Your task to perform on an android device: Search for sushi restaurants on Maps Image 0: 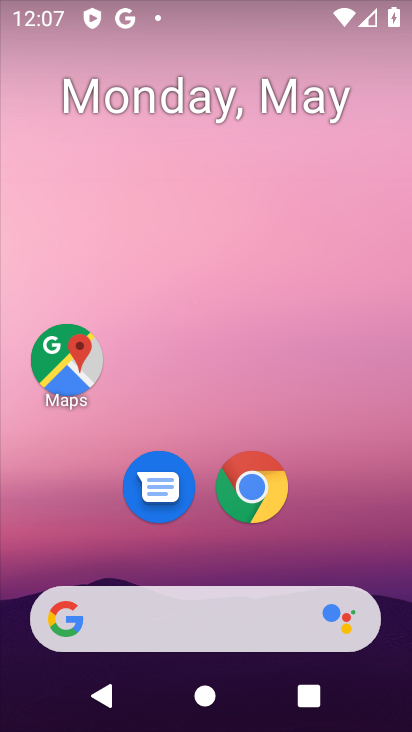
Step 0: click (66, 357)
Your task to perform on an android device: Search for sushi restaurants on Maps Image 1: 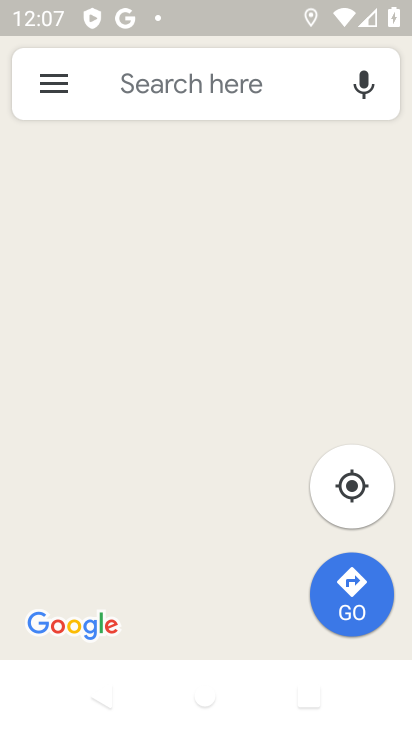
Step 1: click (161, 92)
Your task to perform on an android device: Search for sushi restaurants on Maps Image 2: 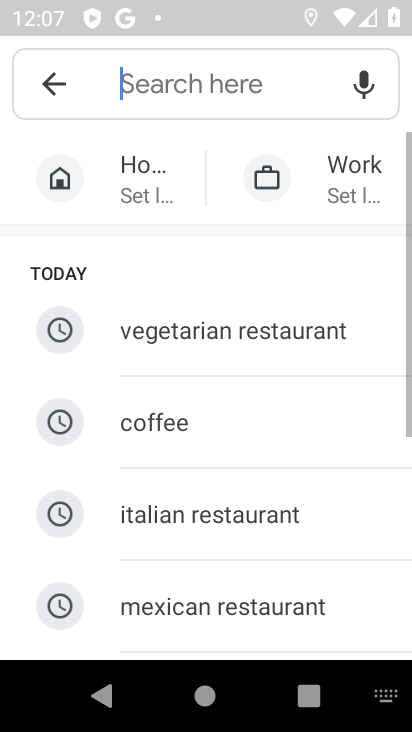
Step 2: type "sushi restaurants"
Your task to perform on an android device: Search for sushi restaurants on Maps Image 3: 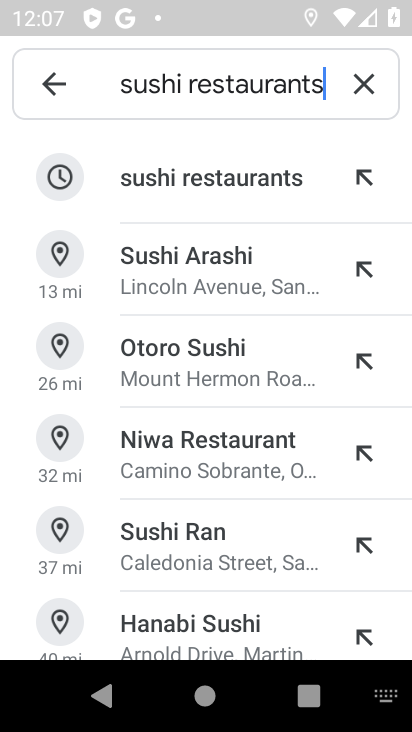
Step 3: click (220, 180)
Your task to perform on an android device: Search for sushi restaurants on Maps Image 4: 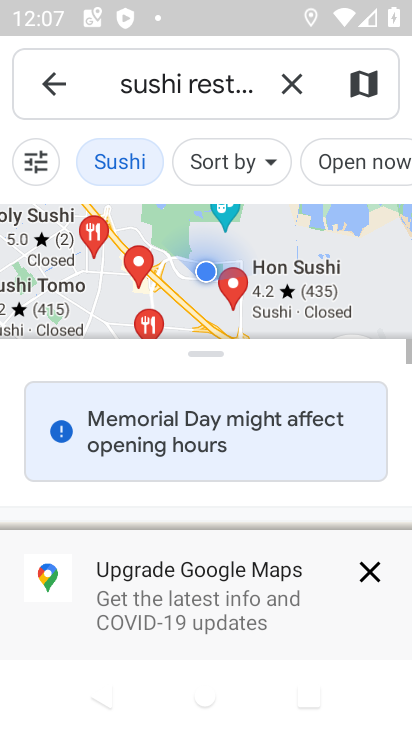
Step 4: task complete